Your task to perform on an android device: toggle notifications settings in the gmail app Image 0: 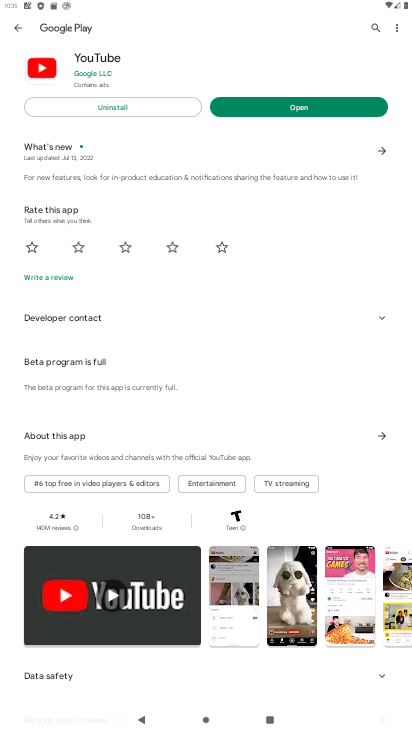
Step 0: task complete